Your task to perform on an android device: turn on sleep mode Image 0: 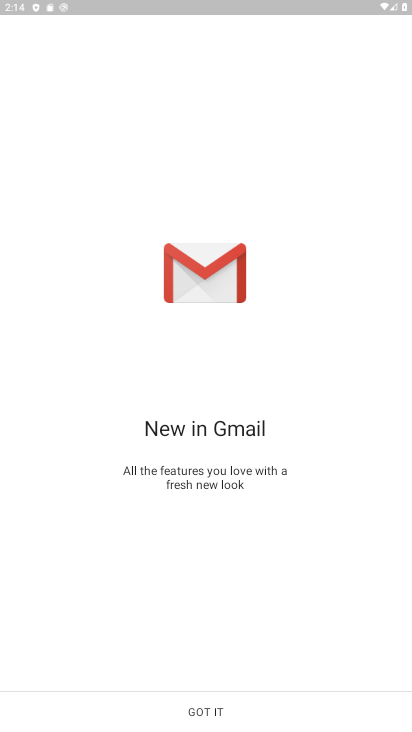
Step 0: press home button
Your task to perform on an android device: turn on sleep mode Image 1: 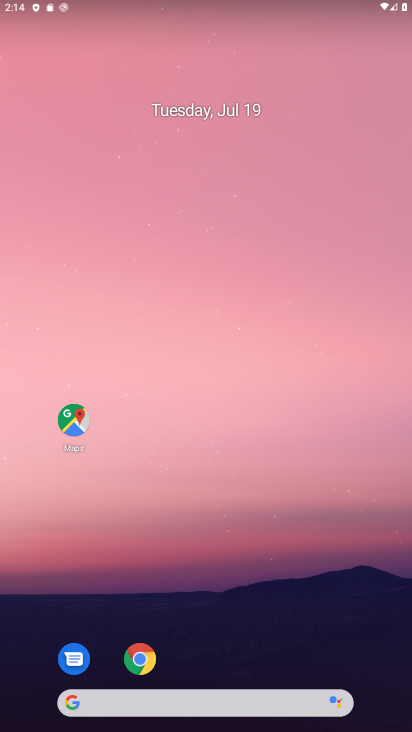
Step 1: drag from (260, 620) to (275, 15)
Your task to perform on an android device: turn on sleep mode Image 2: 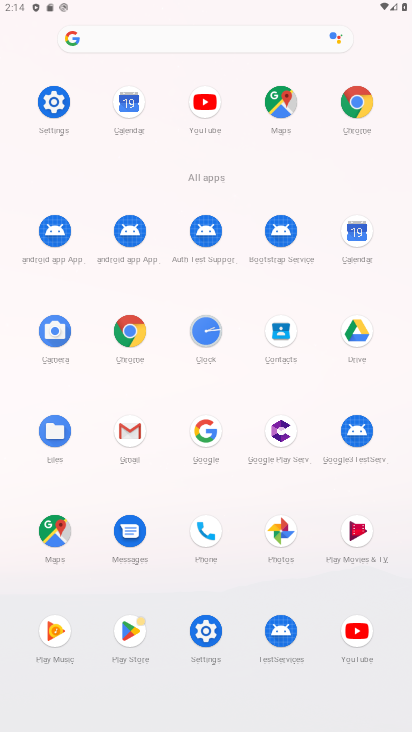
Step 2: click (53, 108)
Your task to perform on an android device: turn on sleep mode Image 3: 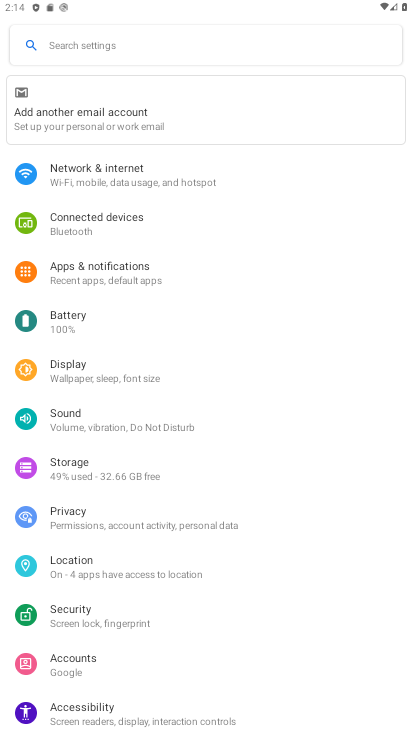
Step 3: click (121, 374)
Your task to perform on an android device: turn on sleep mode Image 4: 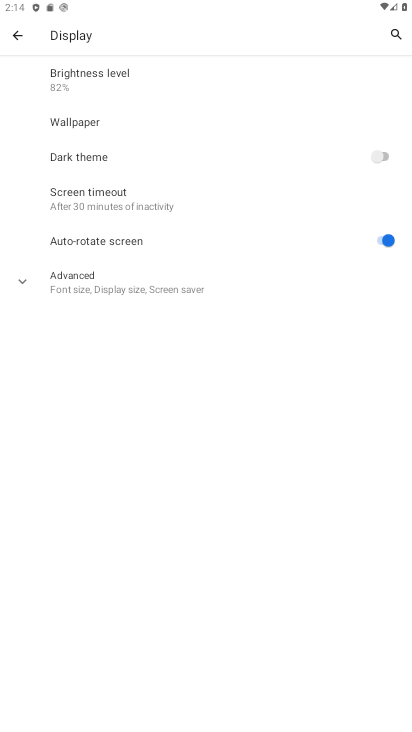
Step 4: click (170, 291)
Your task to perform on an android device: turn on sleep mode Image 5: 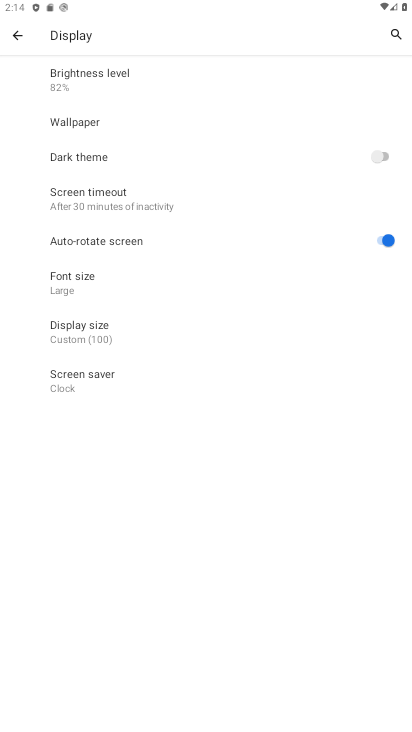
Step 5: task complete